Your task to perform on an android device: What's the latest video from GameSpot Reviews? Image 0: 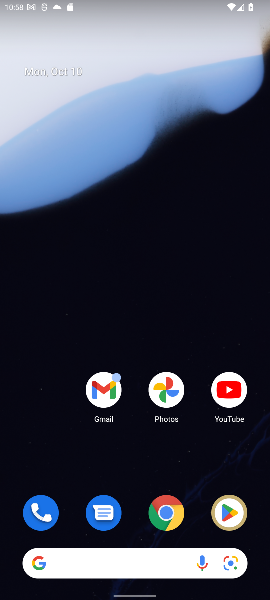
Step 0: click (115, 561)
Your task to perform on an android device: What's the latest video from GameSpot Reviews? Image 1: 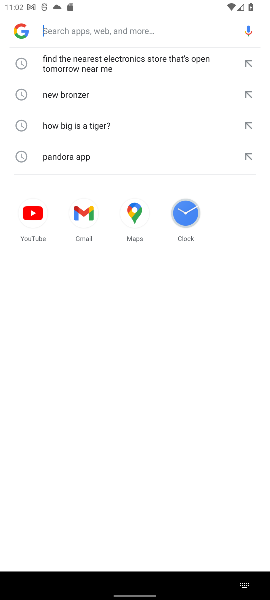
Step 1: type "What's the latest video from GameSpot Reviews?"
Your task to perform on an android device: What's the latest video from GameSpot Reviews? Image 2: 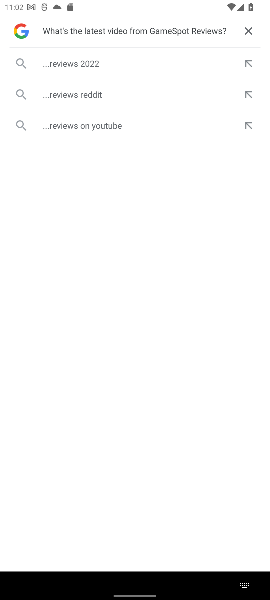
Step 2: click (88, 63)
Your task to perform on an android device: What's the latest video from GameSpot Reviews? Image 3: 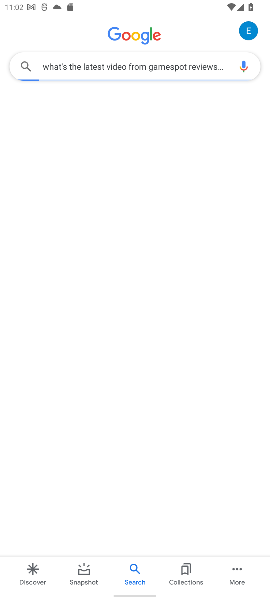
Step 3: click (88, 63)
Your task to perform on an android device: What's the latest video from GameSpot Reviews? Image 4: 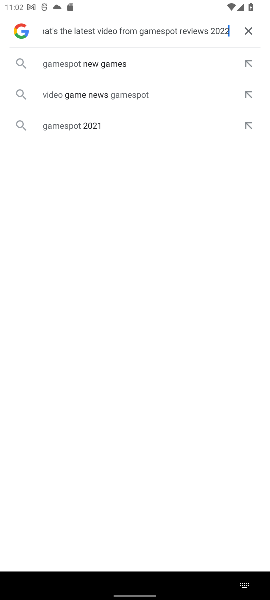
Step 4: task complete